Your task to perform on an android device: Search for Mexican restaurants on Maps Image 0: 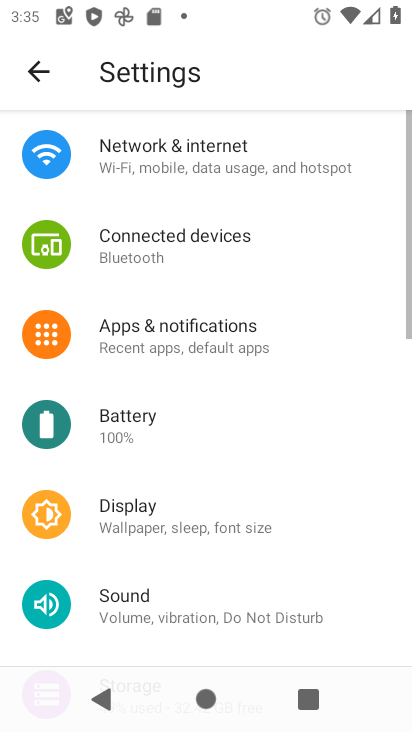
Step 0: press home button
Your task to perform on an android device: Search for Mexican restaurants on Maps Image 1: 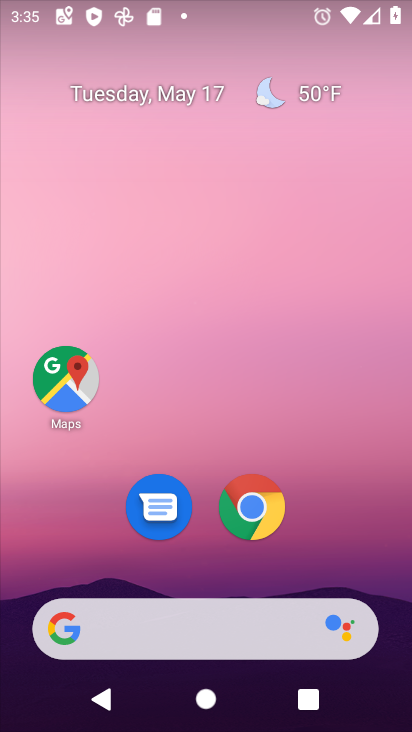
Step 1: click (75, 380)
Your task to perform on an android device: Search for Mexican restaurants on Maps Image 2: 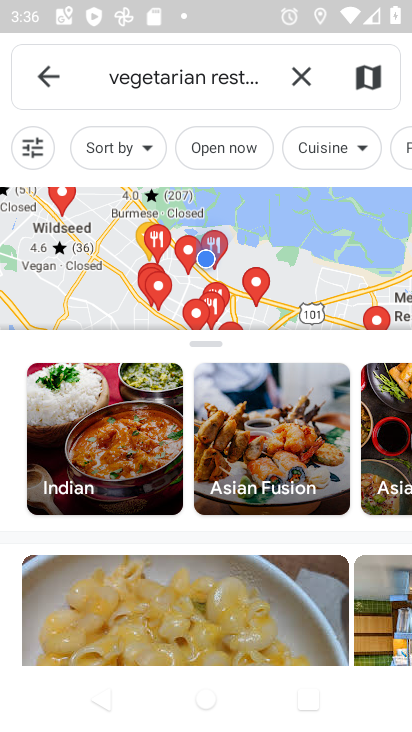
Step 2: click (303, 77)
Your task to perform on an android device: Search for Mexican restaurants on Maps Image 3: 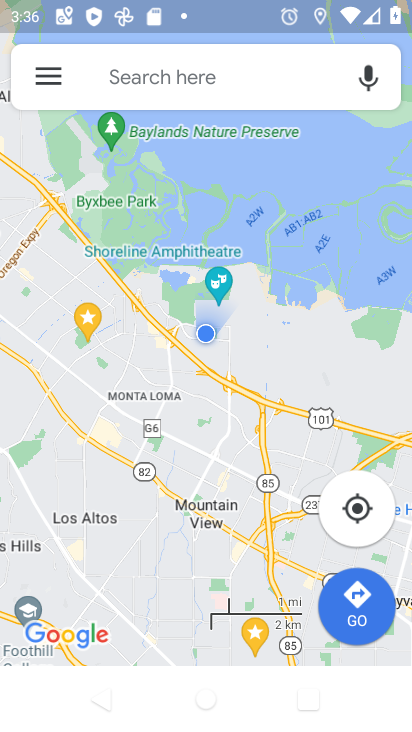
Step 3: click (130, 72)
Your task to perform on an android device: Search for Mexican restaurants on Maps Image 4: 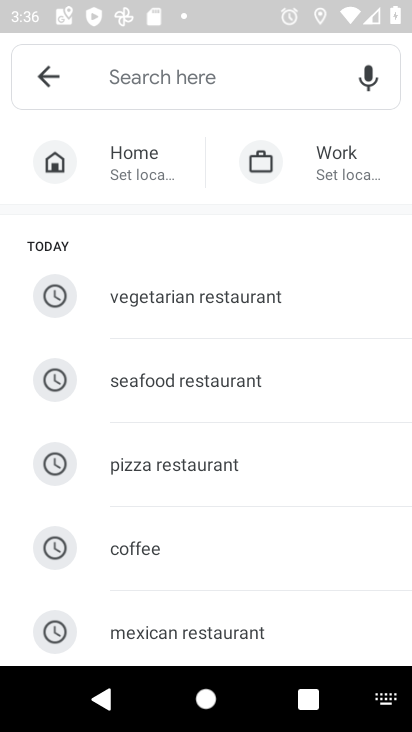
Step 4: click (225, 618)
Your task to perform on an android device: Search for Mexican restaurants on Maps Image 5: 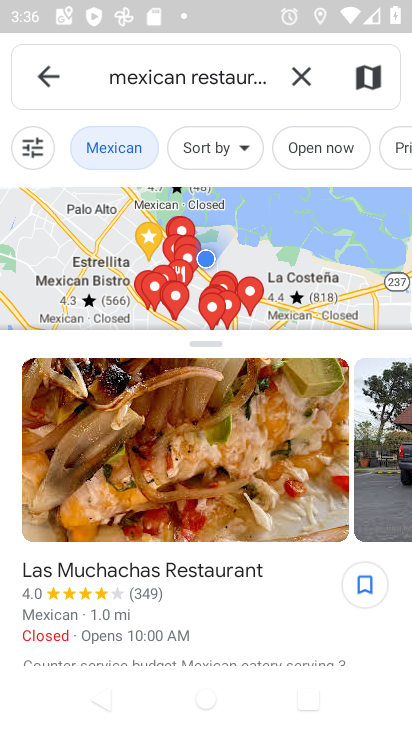
Step 5: task complete